Your task to perform on an android device: check android version Image 0: 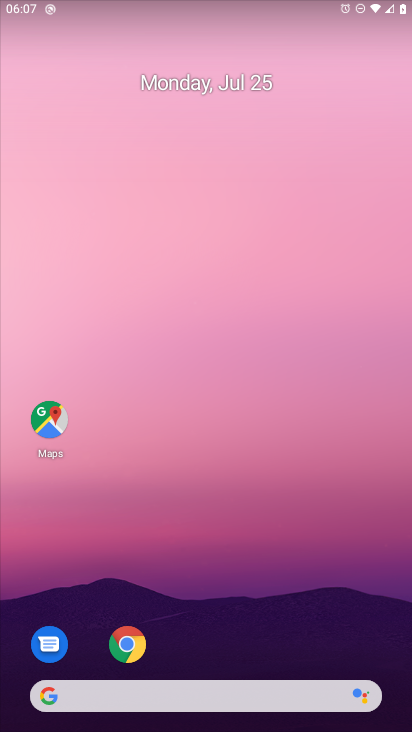
Step 0: drag from (249, 662) to (199, 122)
Your task to perform on an android device: check android version Image 1: 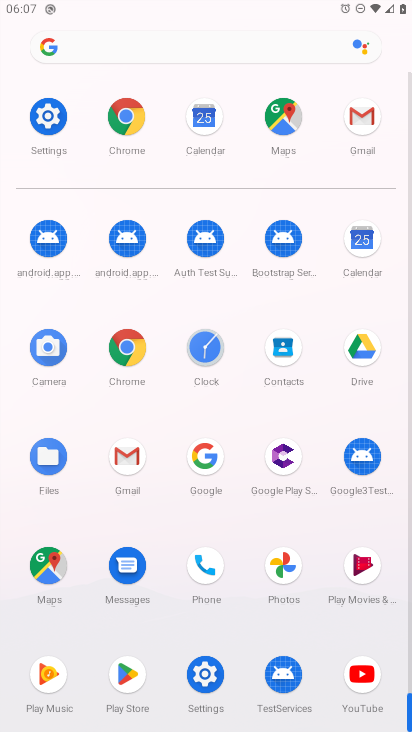
Step 1: click (55, 118)
Your task to perform on an android device: check android version Image 2: 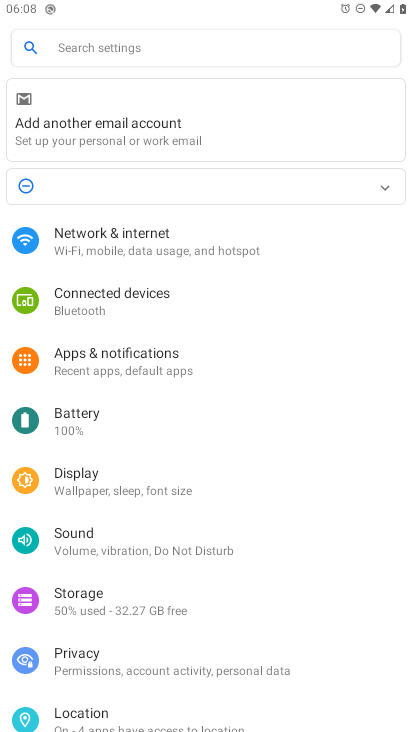
Step 2: drag from (365, 563) to (378, 65)
Your task to perform on an android device: check android version Image 3: 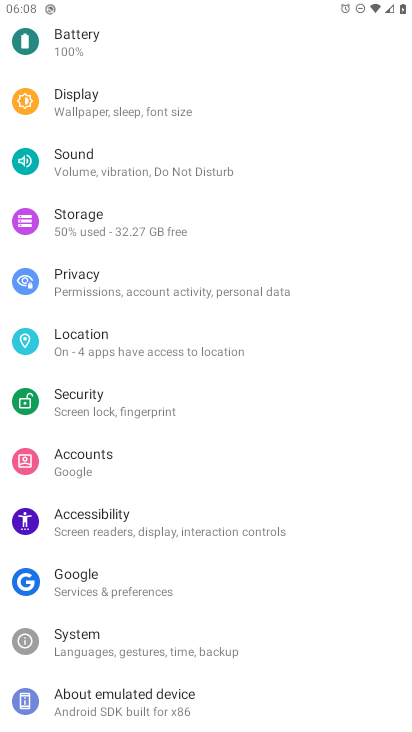
Step 3: click (123, 704)
Your task to perform on an android device: check android version Image 4: 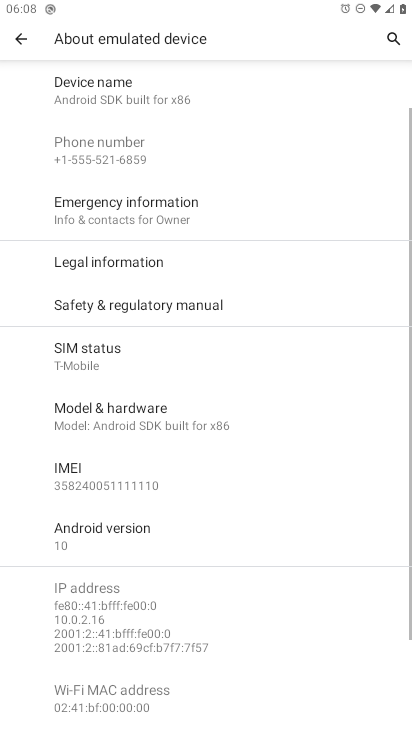
Step 4: task complete